Your task to perform on an android device: Go to wifi settings Image 0: 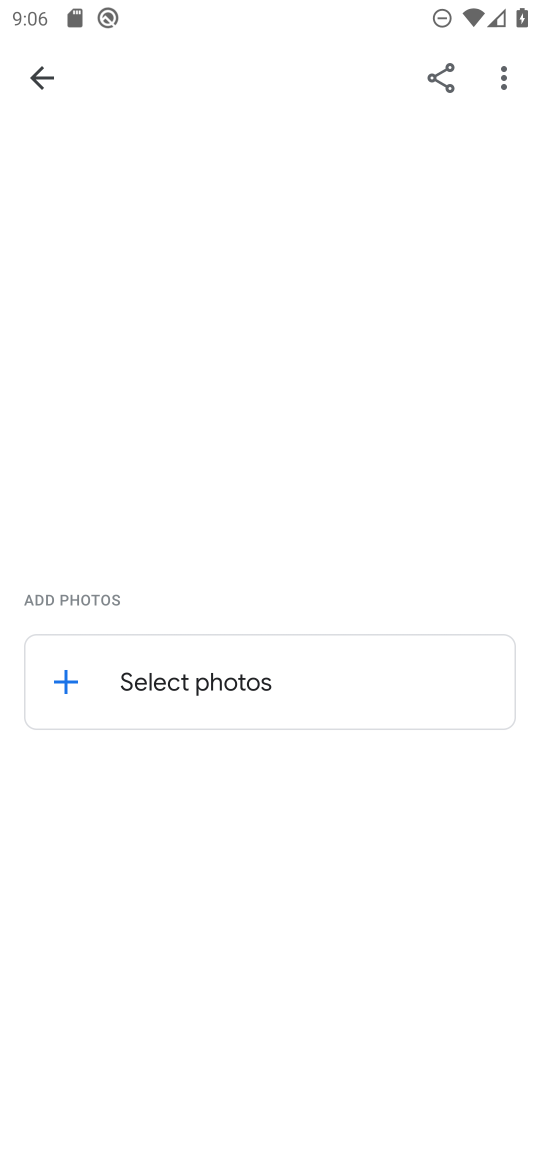
Step 0: press home button
Your task to perform on an android device: Go to wifi settings Image 1: 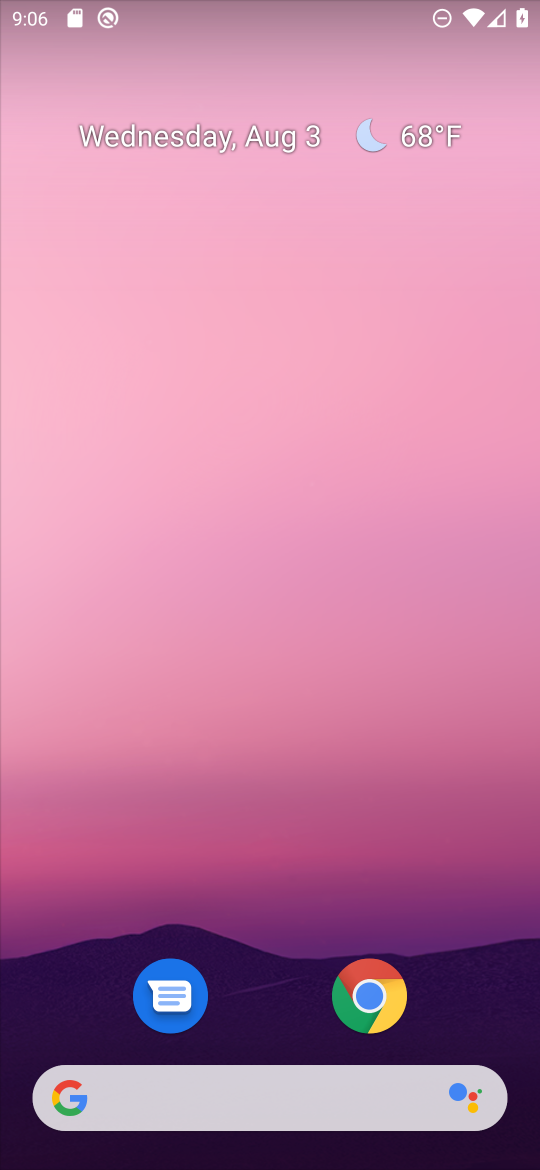
Step 1: drag from (265, 827) to (283, 0)
Your task to perform on an android device: Go to wifi settings Image 2: 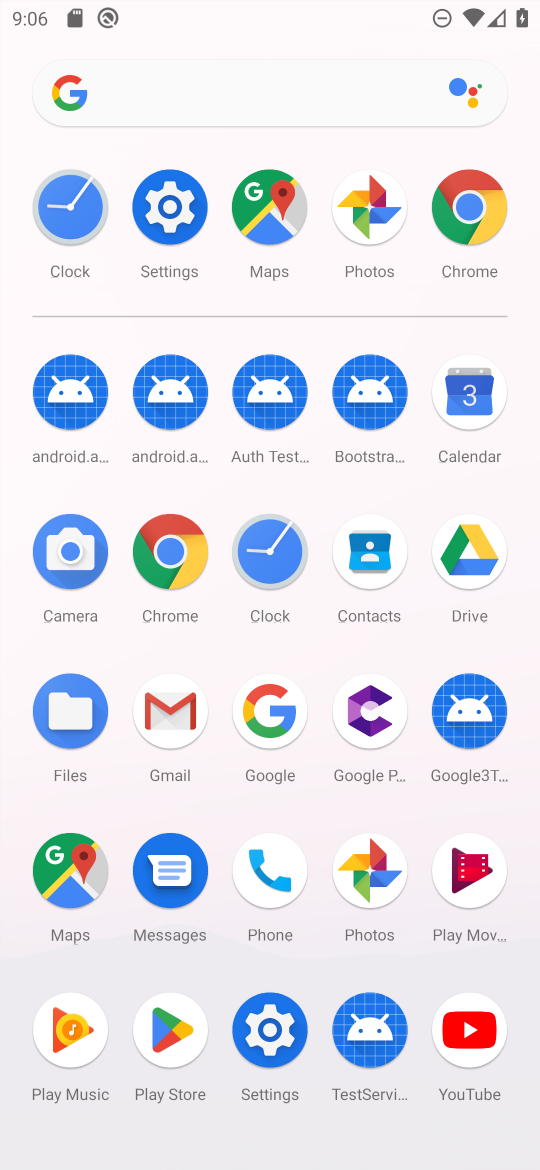
Step 2: click (174, 198)
Your task to perform on an android device: Go to wifi settings Image 3: 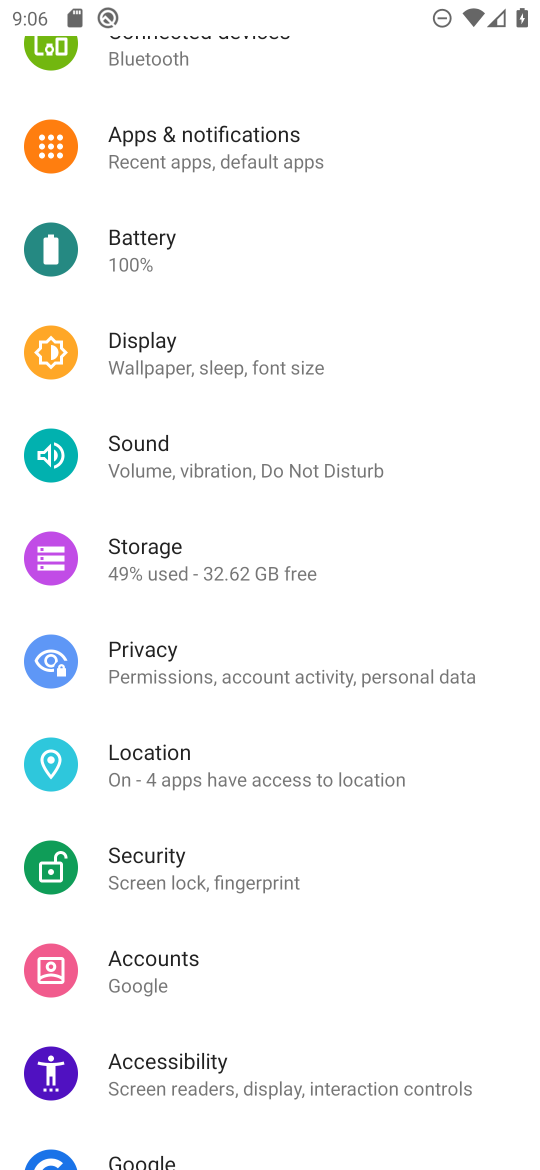
Step 3: drag from (280, 289) to (324, 620)
Your task to perform on an android device: Go to wifi settings Image 4: 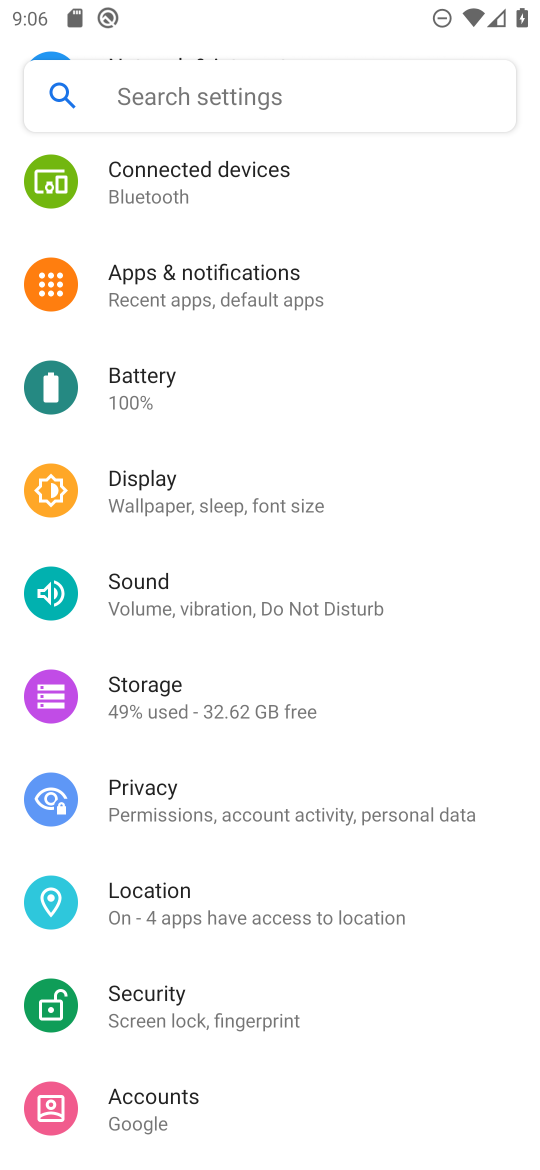
Step 4: drag from (308, 444) to (335, 789)
Your task to perform on an android device: Go to wifi settings Image 5: 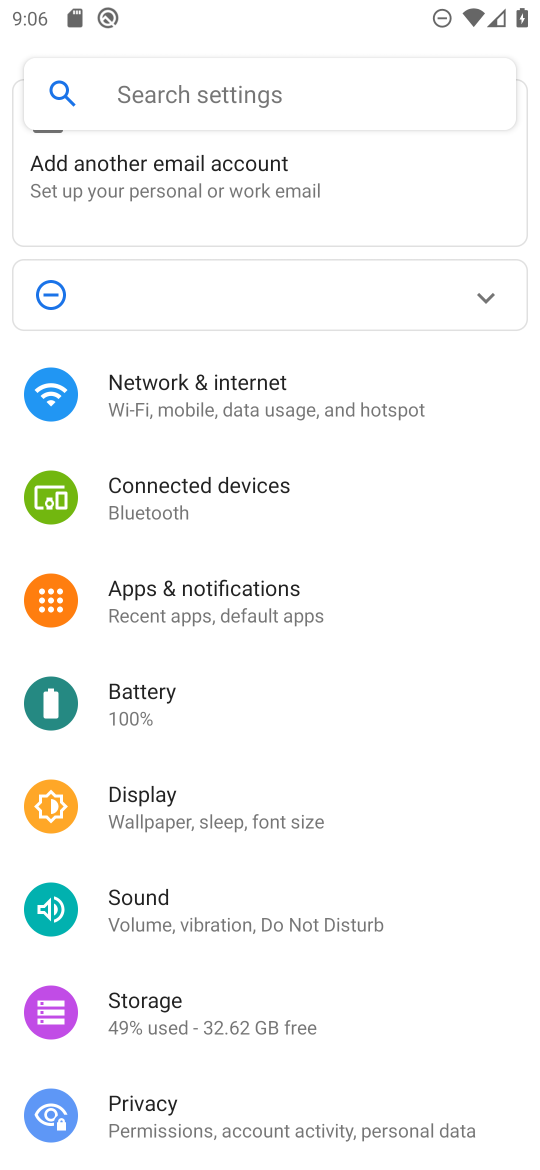
Step 5: click (282, 400)
Your task to perform on an android device: Go to wifi settings Image 6: 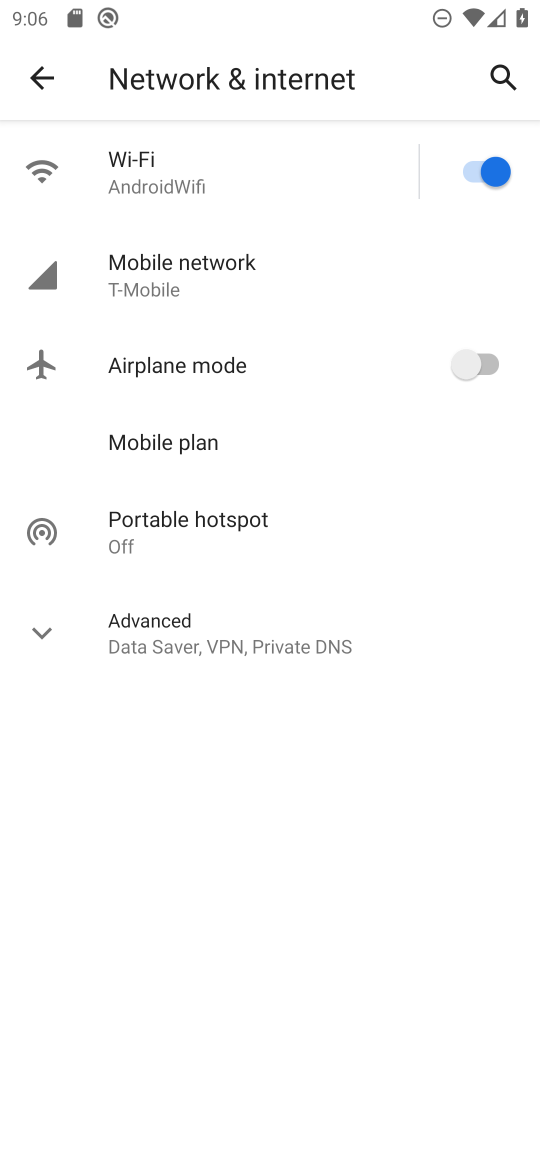
Step 6: click (176, 152)
Your task to perform on an android device: Go to wifi settings Image 7: 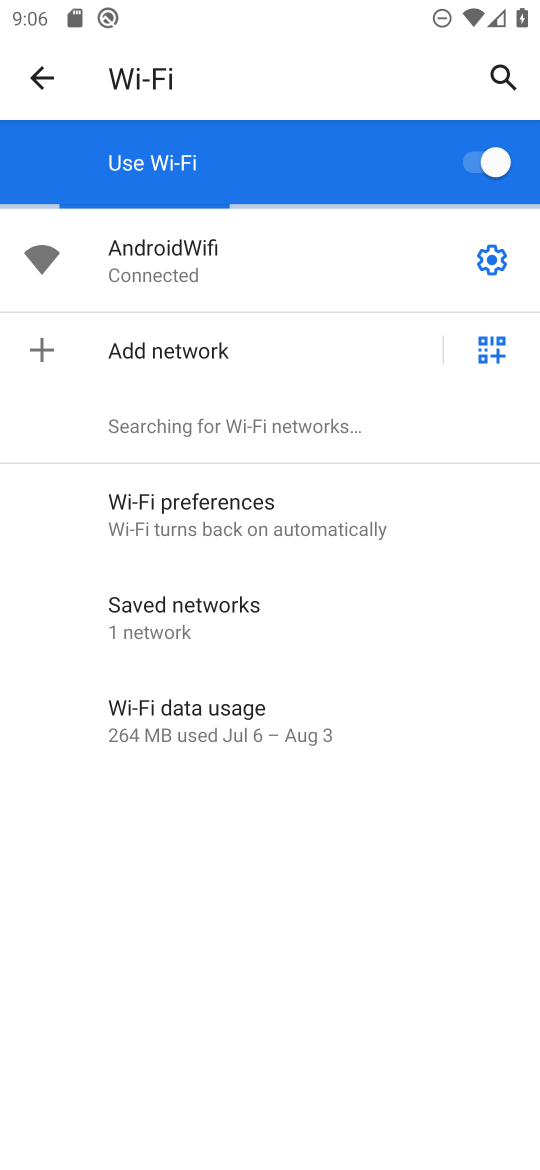
Step 7: task complete